Your task to perform on an android device: Open the stopwatch Image 0: 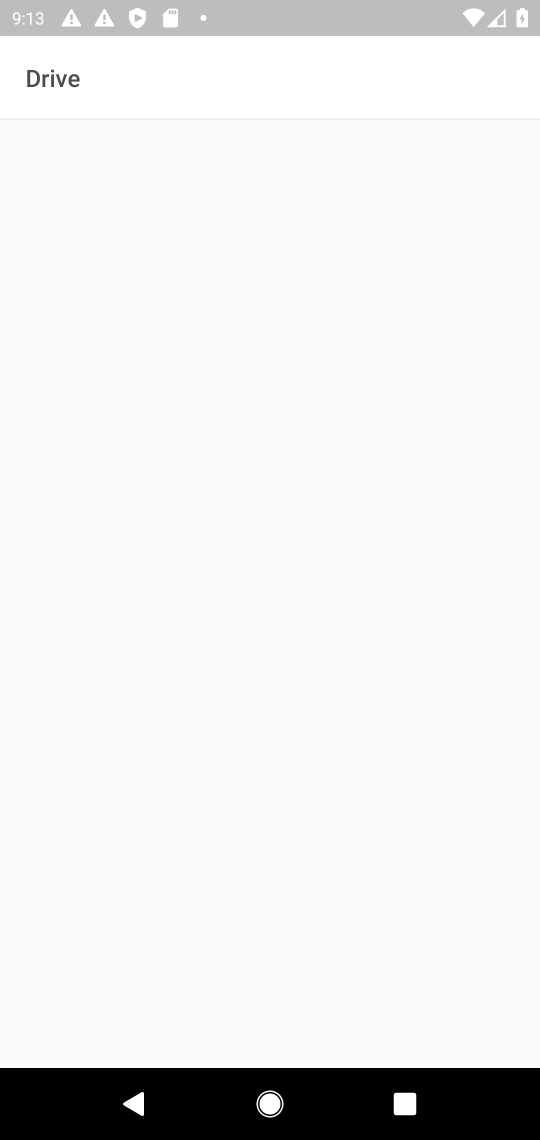
Step 0: press home button
Your task to perform on an android device: Open the stopwatch Image 1: 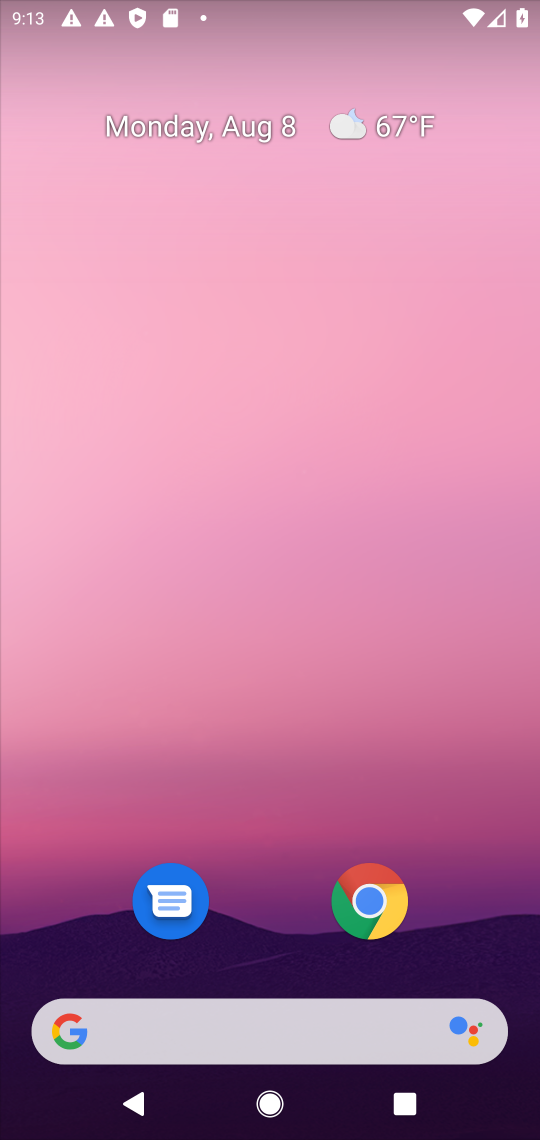
Step 1: drag from (251, 854) to (251, 68)
Your task to perform on an android device: Open the stopwatch Image 2: 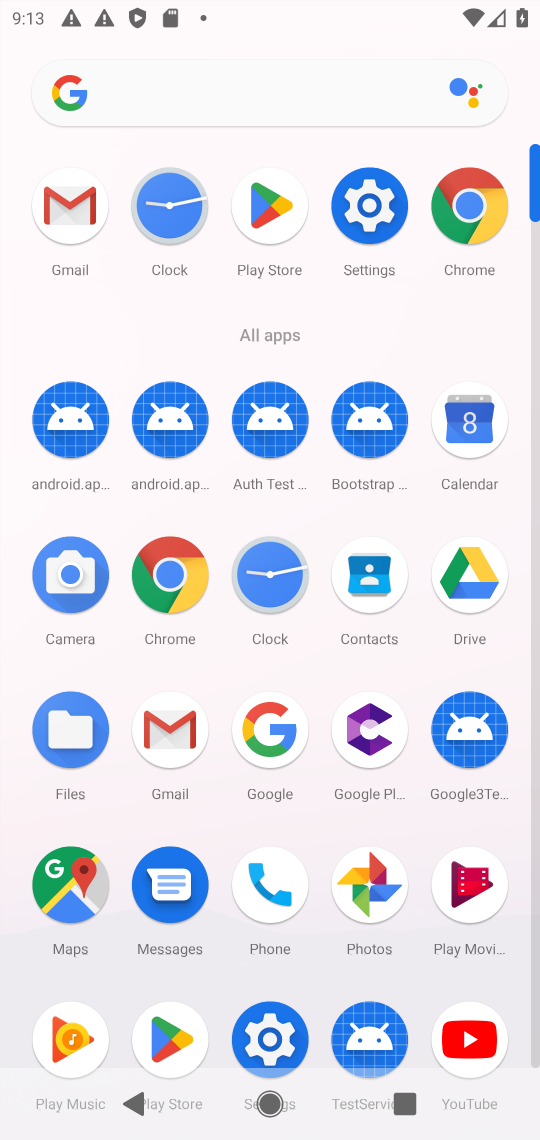
Step 2: click (282, 582)
Your task to perform on an android device: Open the stopwatch Image 3: 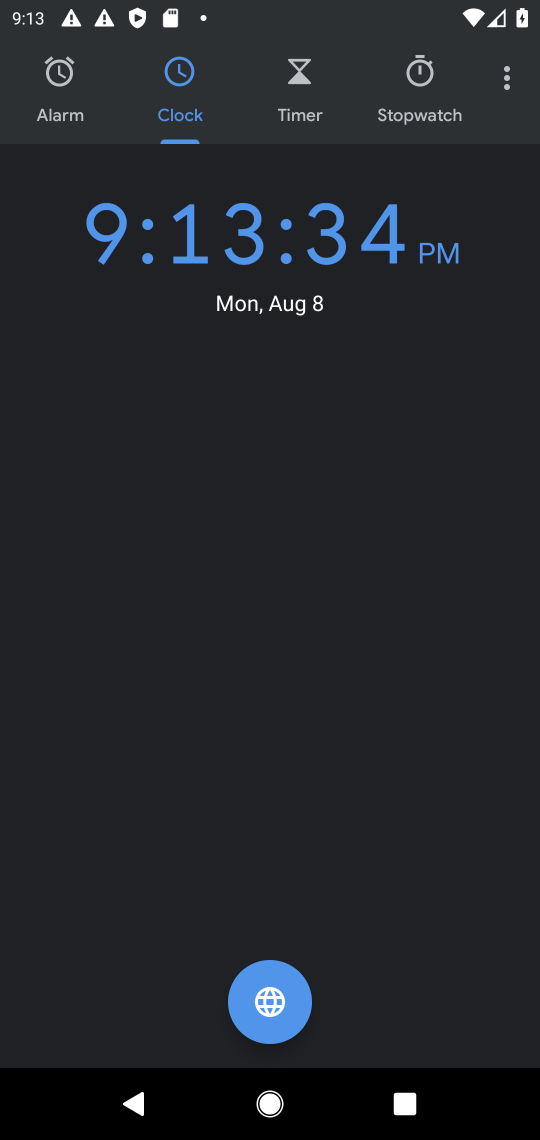
Step 3: click (430, 107)
Your task to perform on an android device: Open the stopwatch Image 4: 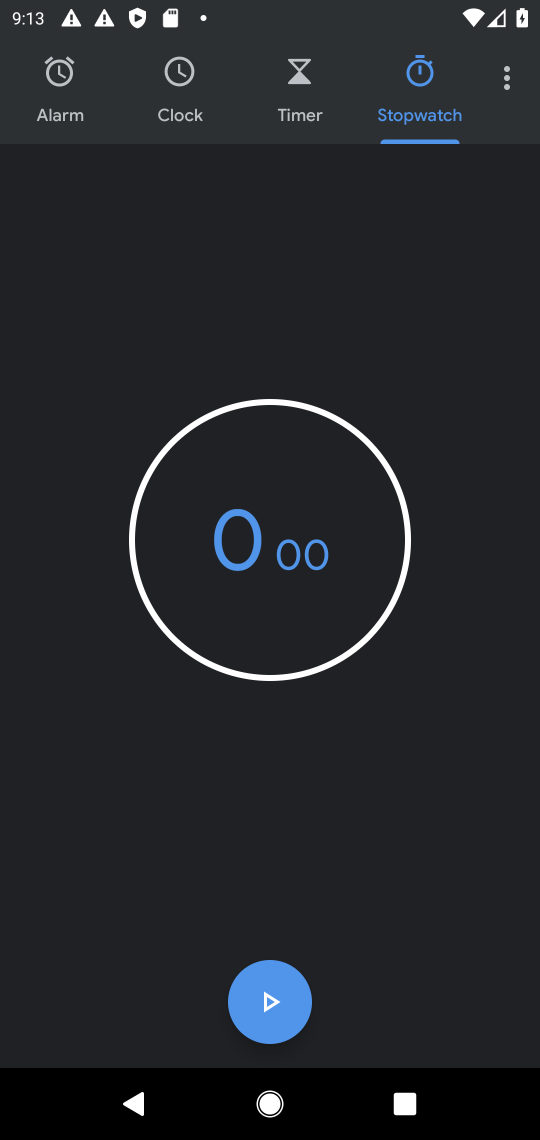
Step 4: task complete